Your task to perform on an android device: find snoozed emails in the gmail app Image 0: 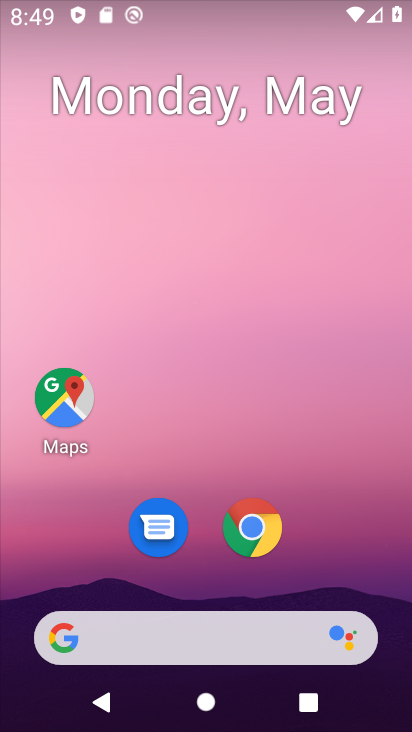
Step 0: drag from (322, 558) to (218, 18)
Your task to perform on an android device: find snoozed emails in the gmail app Image 1: 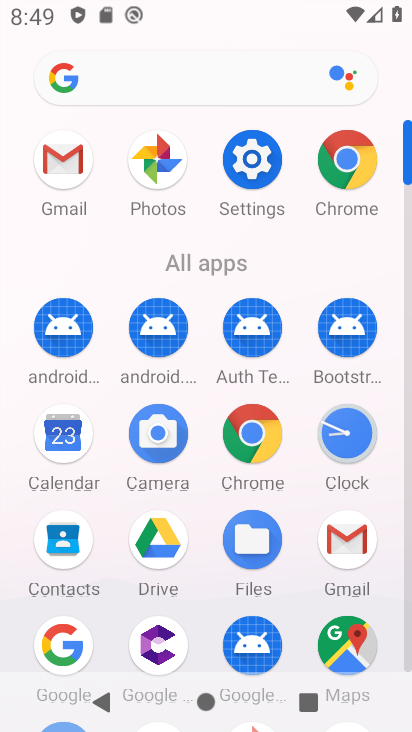
Step 1: drag from (8, 572) to (6, 212)
Your task to perform on an android device: find snoozed emails in the gmail app Image 2: 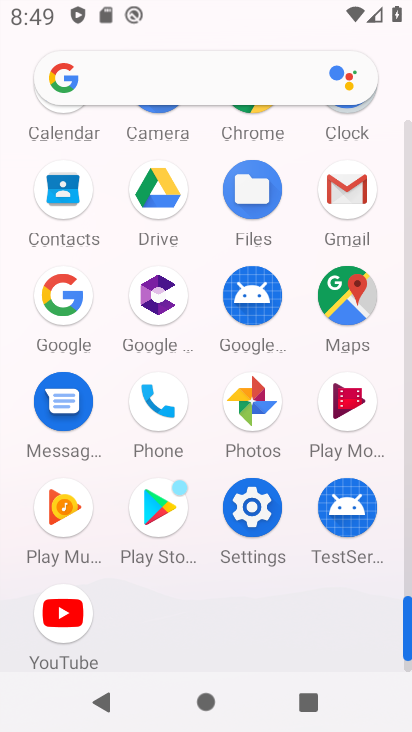
Step 2: drag from (6, 446) to (10, 204)
Your task to perform on an android device: find snoozed emails in the gmail app Image 3: 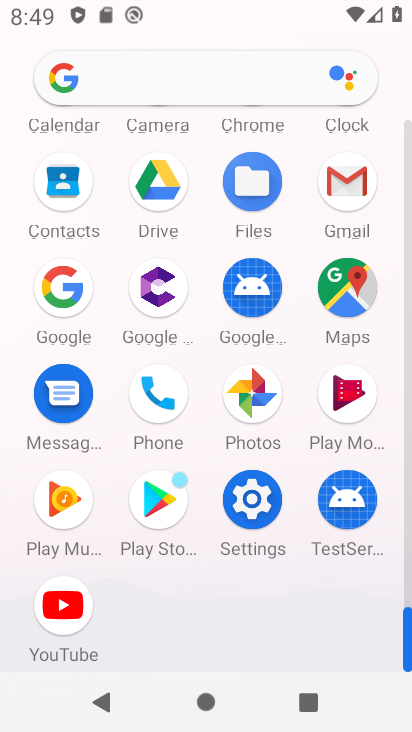
Step 3: click (344, 176)
Your task to perform on an android device: find snoozed emails in the gmail app Image 4: 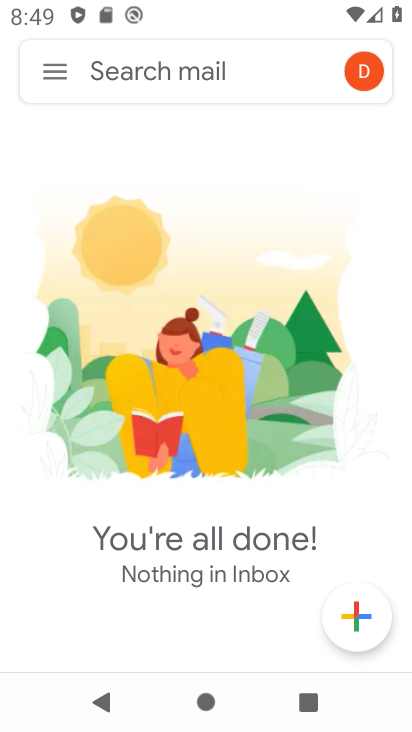
Step 4: click (60, 65)
Your task to perform on an android device: find snoozed emails in the gmail app Image 5: 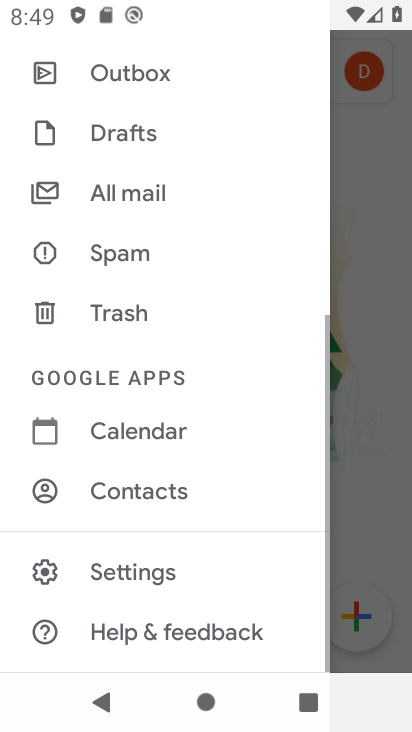
Step 5: drag from (280, 180) to (236, 596)
Your task to perform on an android device: find snoozed emails in the gmail app Image 6: 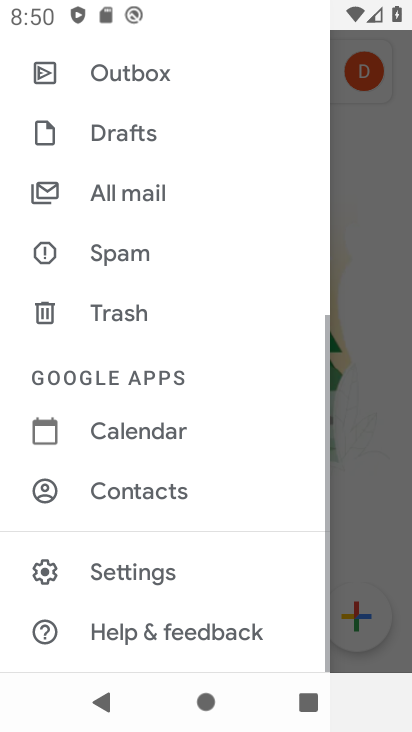
Step 6: drag from (168, 108) to (197, 578)
Your task to perform on an android device: find snoozed emails in the gmail app Image 7: 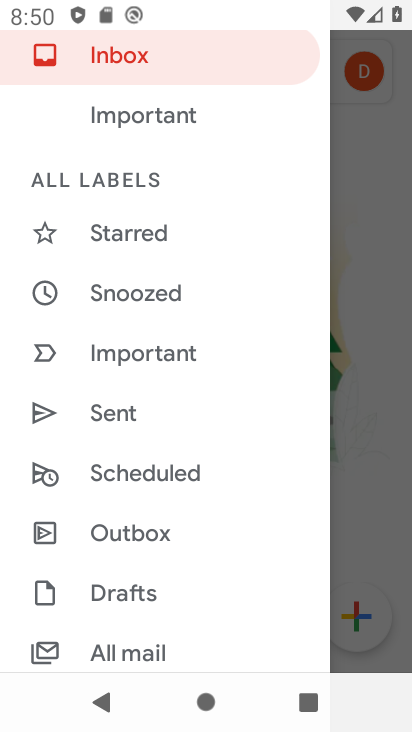
Step 7: drag from (200, 161) to (207, 436)
Your task to perform on an android device: find snoozed emails in the gmail app Image 8: 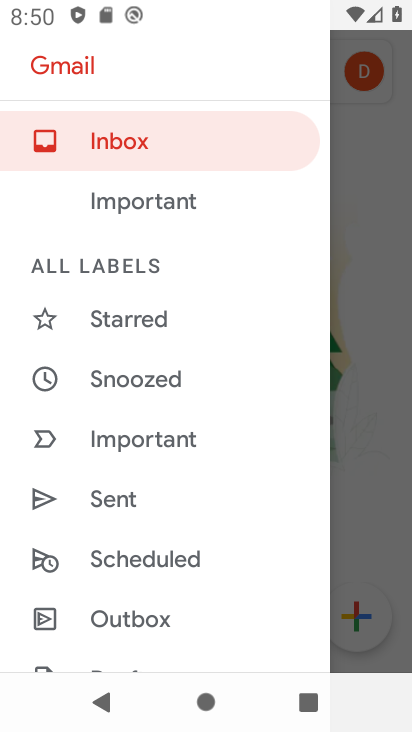
Step 8: click (149, 378)
Your task to perform on an android device: find snoozed emails in the gmail app Image 9: 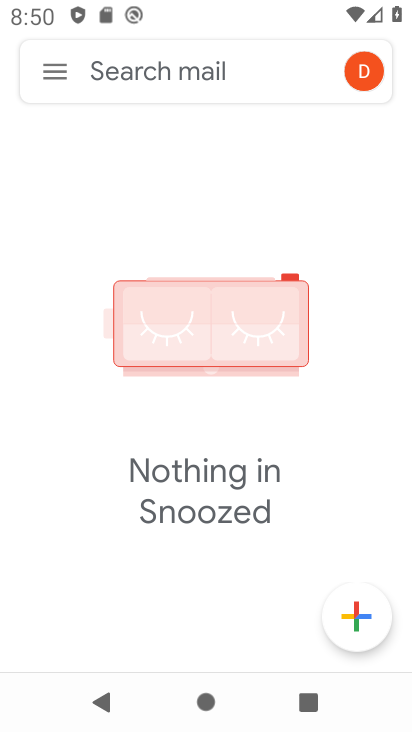
Step 9: task complete